Your task to perform on an android device: Do I have any events today? Image 0: 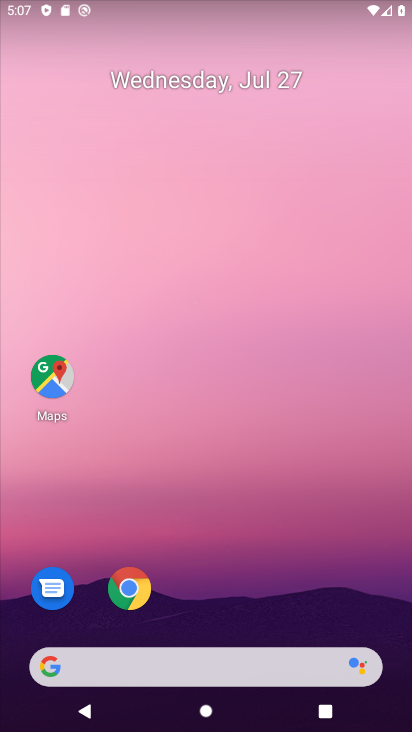
Step 0: drag from (304, 678) to (286, 0)
Your task to perform on an android device: Do I have any events today? Image 1: 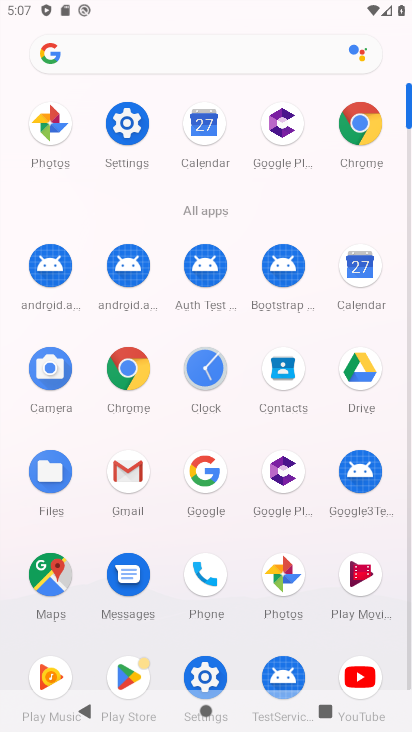
Step 1: click (369, 274)
Your task to perform on an android device: Do I have any events today? Image 2: 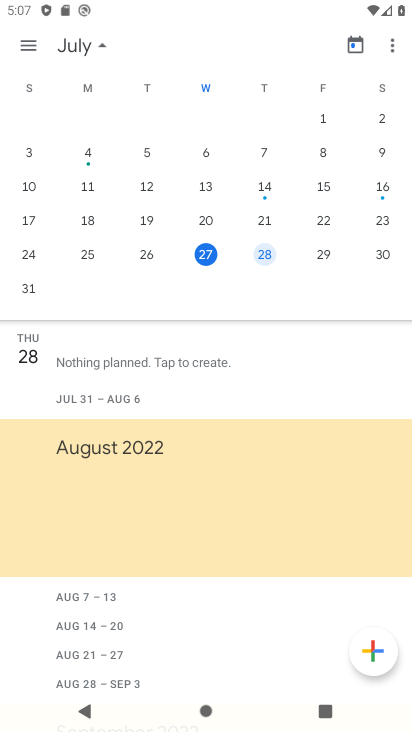
Step 2: click (196, 252)
Your task to perform on an android device: Do I have any events today? Image 3: 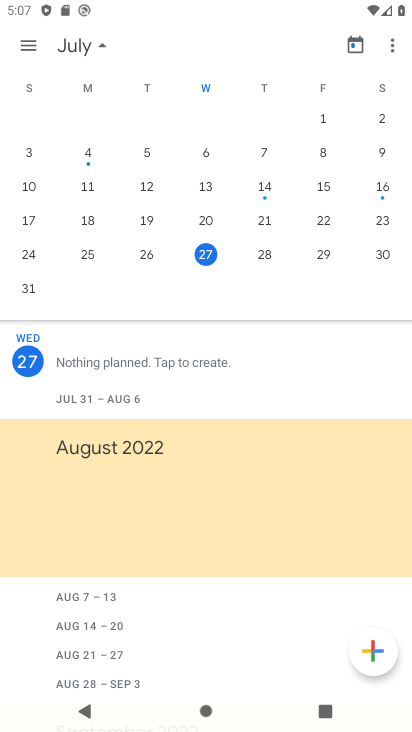
Step 3: task complete